Your task to perform on an android device: check battery use Image 0: 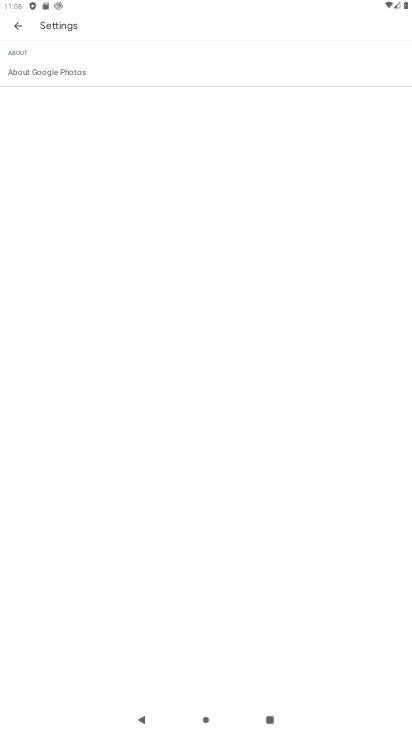
Step 0: press home button
Your task to perform on an android device: check battery use Image 1: 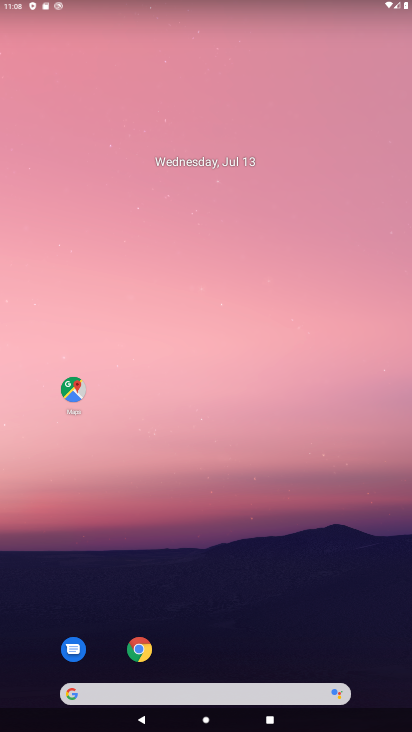
Step 1: drag from (256, 558) to (274, 124)
Your task to perform on an android device: check battery use Image 2: 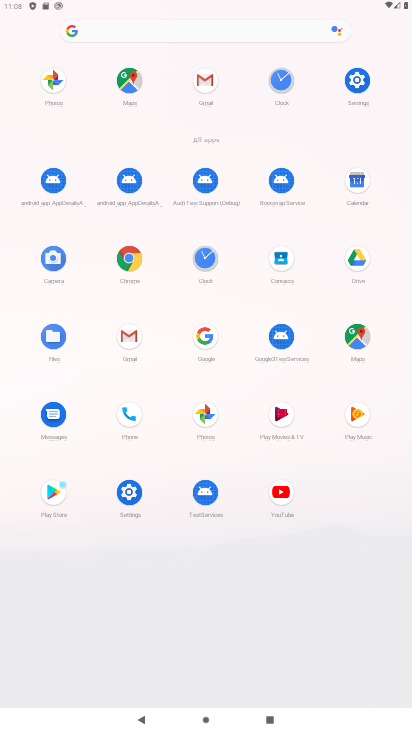
Step 2: click (121, 500)
Your task to perform on an android device: check battery use Image 3: 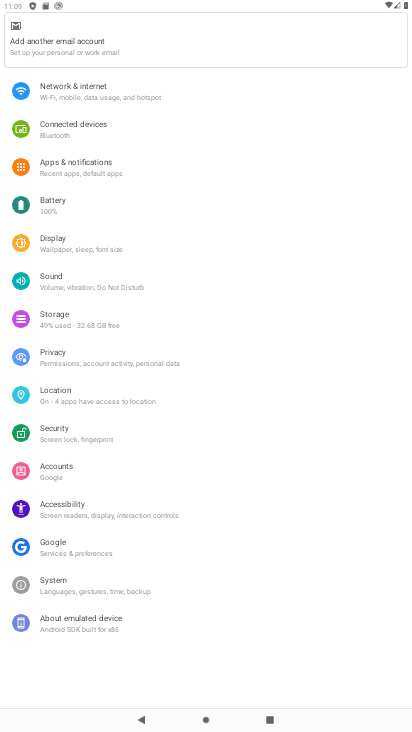
Step 3: click (78, 205)
Your task to perform on an android device: check battery use Image 4: 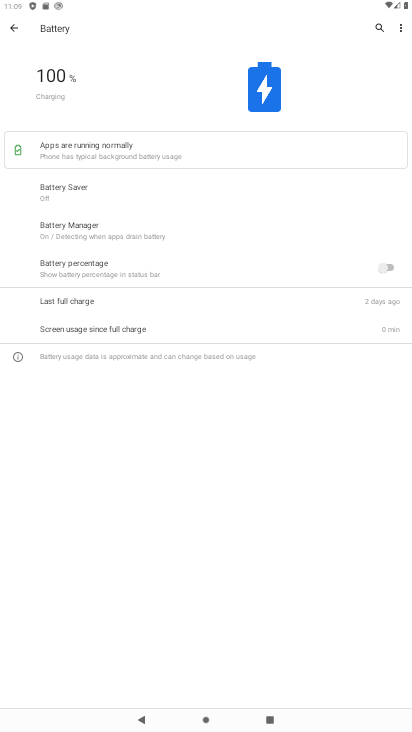
Step 4: click (400, 26)
Your task to perform on an android device: check battery use Image 5: 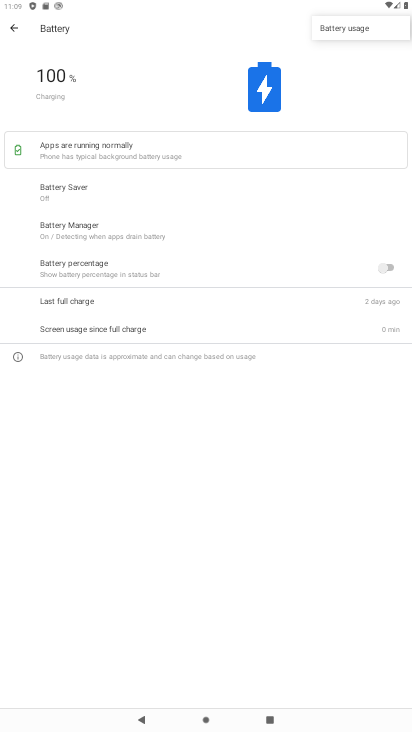
Step 5: click (351, 27)
Your task to perform on an android device: check battery use Image 6: 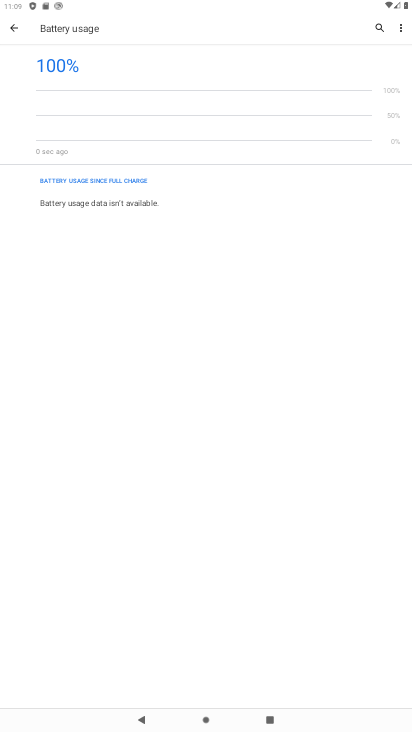
Step 6: task complete